Your task to perform on an android device: Search for Italian restaurants on Maps Image 0: 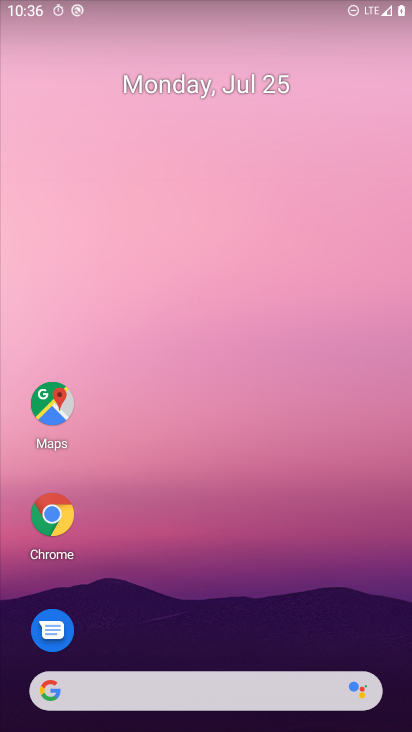
Step 0: click (33, 385)
Your task to perform on an android device: Search for Italian restaurants on Maps Image 1: 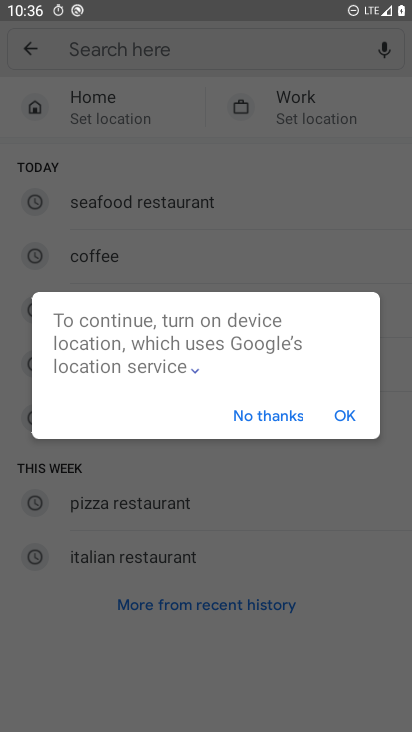
Step 1: click (344, 413)
Your task to perform on an android device: Search for Italian restaurants on Maps Image 2: 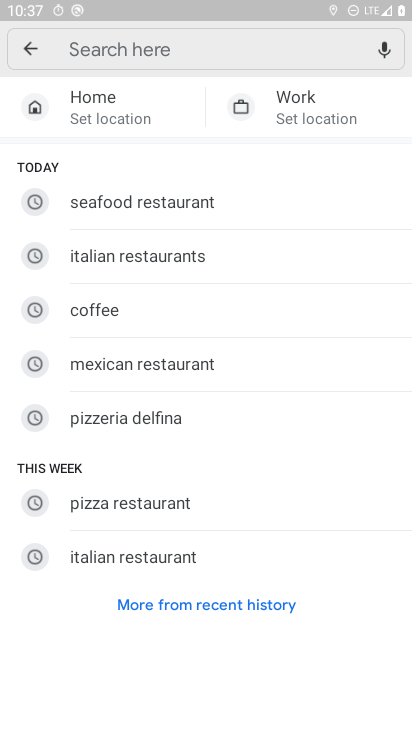
Step 2: click (152, 258)
Your task to perform on an android device: Search for Italian restaurants on Maps Image 3: 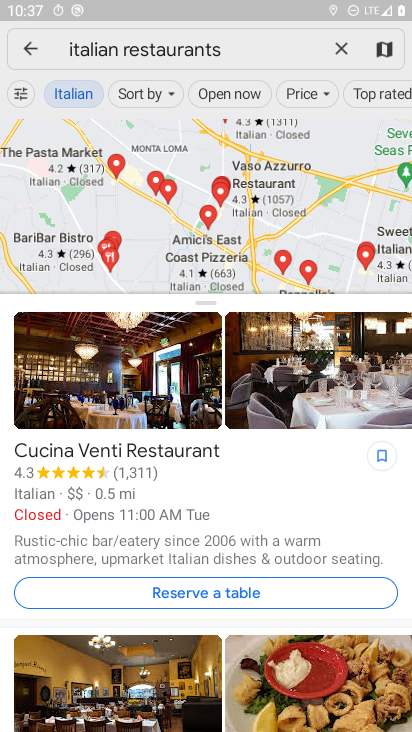
Step 3: task complete